Your task to perform on an android device: Search for Mexican restaurants on Maps Image 0: 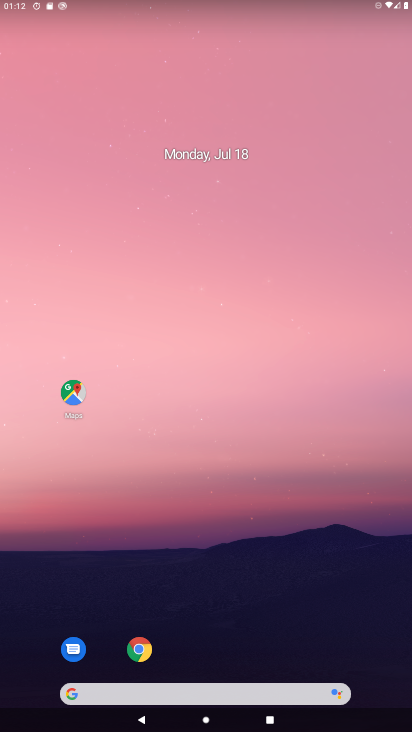
Step 0: click (77, 404)
Your task to perform on an android device: Search for Mexican restaurants on Maps Image 1: 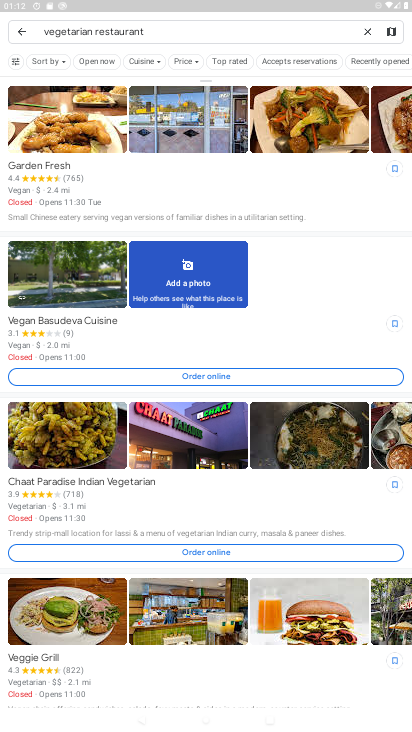
Step 1: click (371, 33)
Your task to perform on an android device: Search for Mexican restaurants on Maps Image 2: 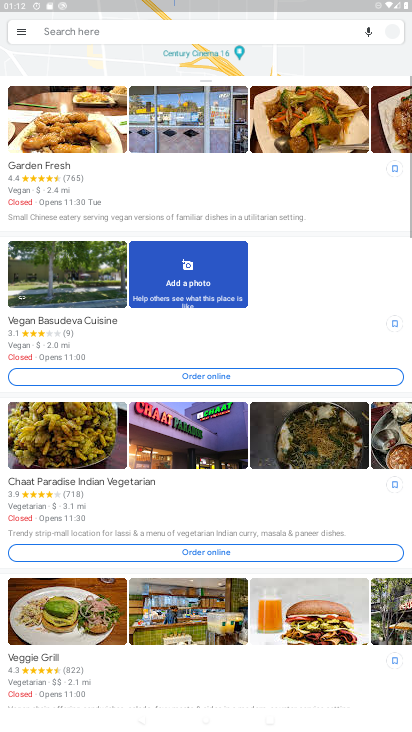
Step 2: click (57, 28)
Your task to perform on an android device: Search for Mexican restaurants on Maps Image 3: 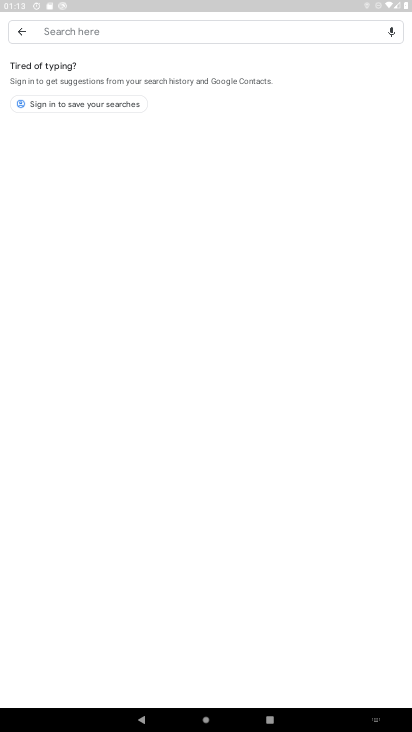
Step 3: type "Mexican restaurants"
Your task to perform on an android device: Search for Mexican restaurants on Maps Image 4: 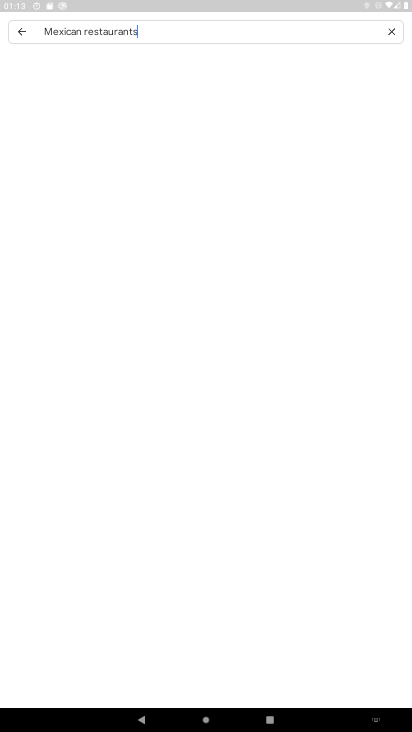
Step 4: type ""
Your task to perform on an android device: Search for Mexican restaurants on Maps Image 5: 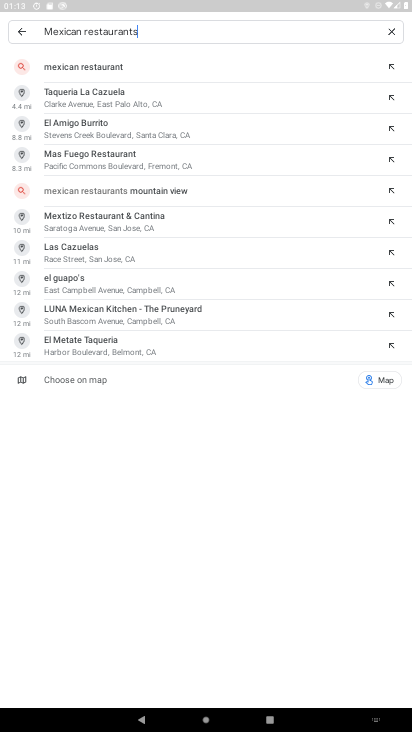
Step 5: click (98, 72)
Your task to perform on an android device: Search for Mexican restaurants on Maps Image 6: 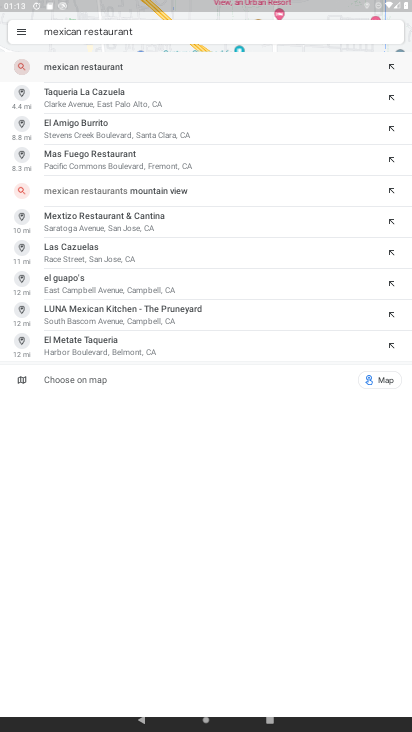
Step 6: click (96, 59)
Your task to perform on an android device: Search for Mexican restaurants on Maps Image 7: 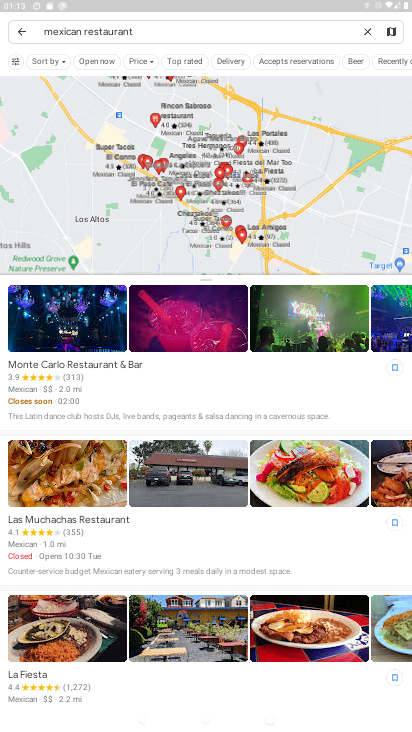
Step 7: task complete